Your task to perform on an android device: Open calendar and show me the second week of next month Image 0: 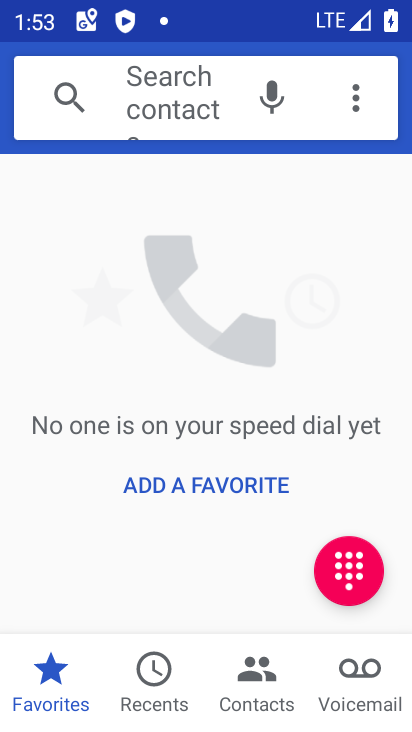
Step 0: press home button
Your task to perform on an android device: Open calendar and show me the second week of next month Image 1: 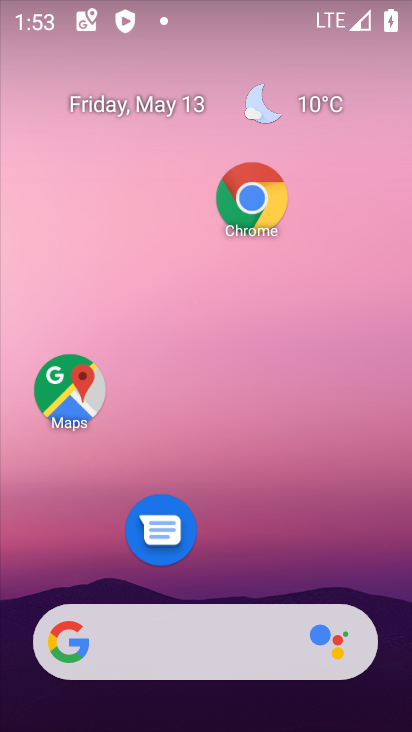
Step 1: drag from (221, 598) to (271, 29)
Your task to perform on an android device: Open calendar and show me the second week of next month Image 2: 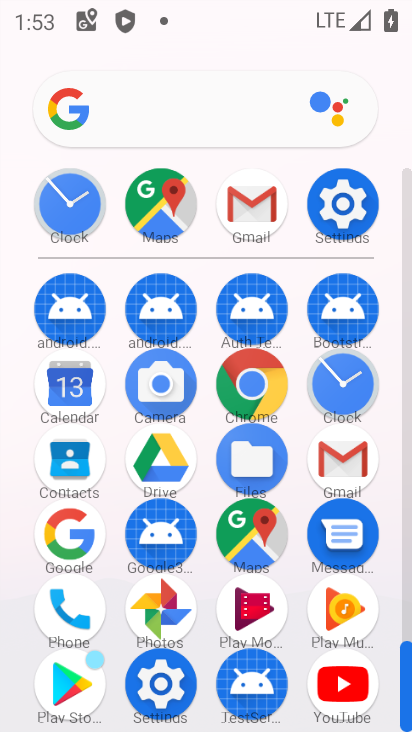
Step 2: click (64, 391)
Your task to perform on an android device: Open calendar and show me the second week of next month Image 3: 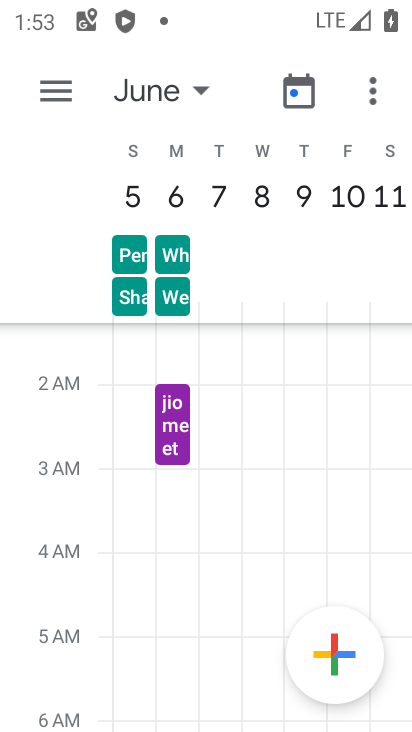
Step 3: task complete